Your task to perform on an android device: turn pop-ups on in chrome Image 0: 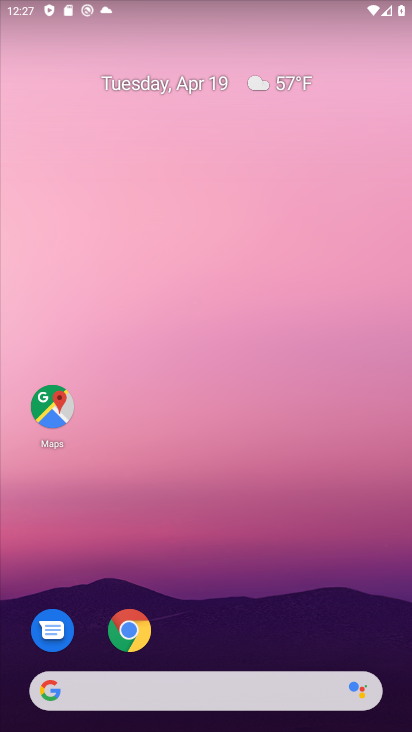
Step 0: click (133, 642)
Your task to perform on an android device: turn pop-ups on in chrome Image 1: 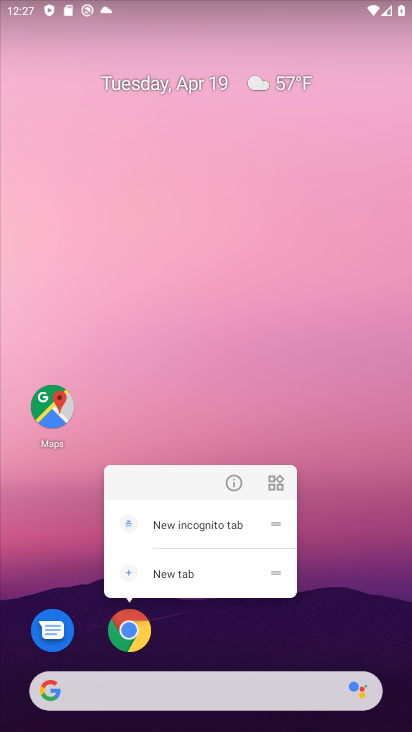
Step 1: drag from (257, 696) to (358, 162)
Your task to perform on an android device: turn pop-ups on in chrome Image 2: 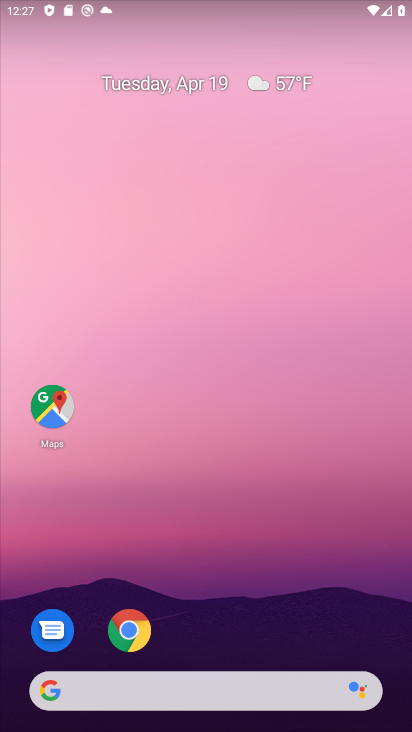
Step 2: drag from (207, 615) to (278, 63)
Your task to perform on an android device: turn pop-ups on in chrome Image 3: 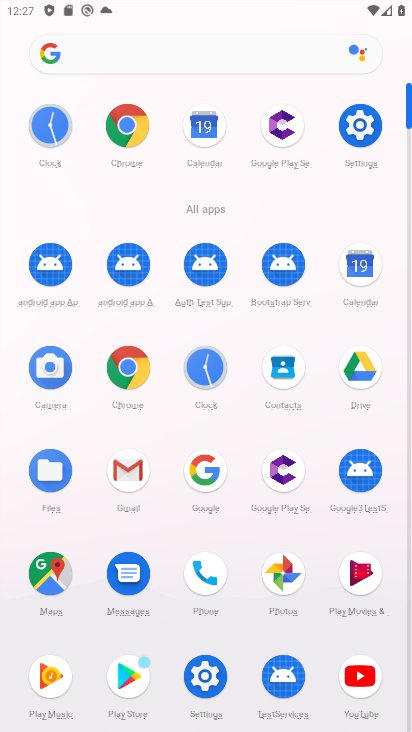
Step 3: click (129, 372)
Your task to perform on an android device: turn pop-ups on in chrome Image 4: 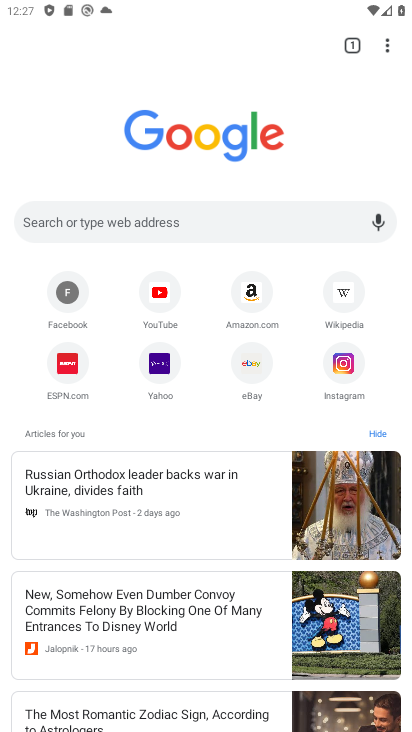
Step 4: click (390, 43)
Your task to perform on an android device: turn pop-ups on in chrome Image 5: 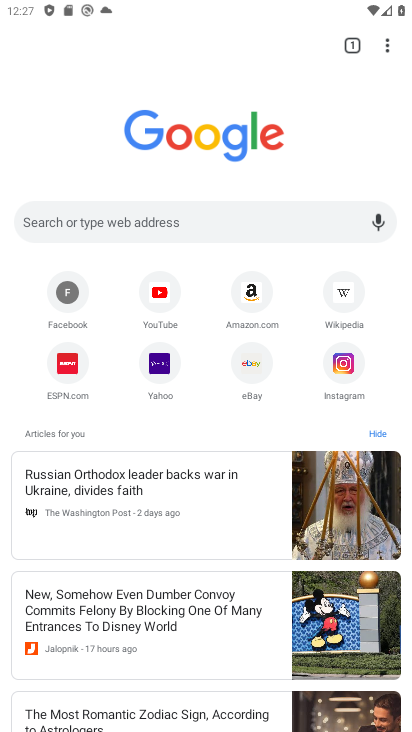
Step 5: drag from (392, 58) to (308, 380)
Your task to perform on an android device: turn pop-ups on in chrome Image 6: 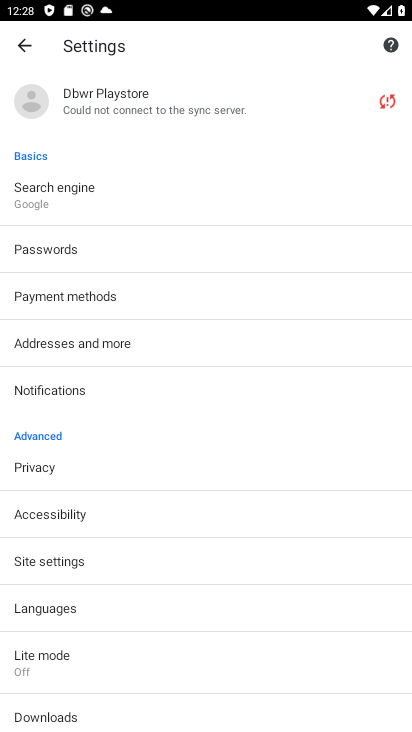
Step 6: drag from (133, 650) to (212, 317)
Your task to perform on an android device: turn pop-ups on in chrome Image 7: 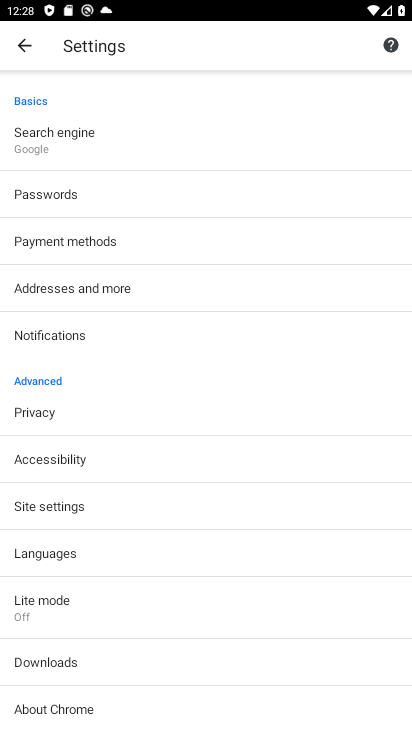
Step 7: click (111, 510)
Your task to perform on an android device: turn pop-ups on in chrome Image 8: 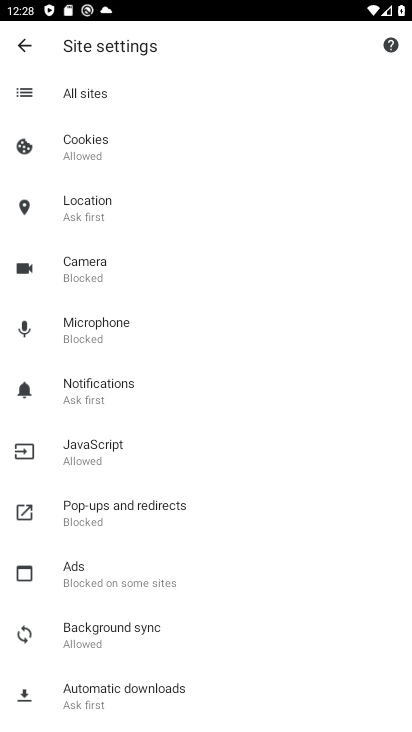
Step 8: click (179, 515)
Your task to perform on an android device: turn pop-ups on in chrome Image 9: 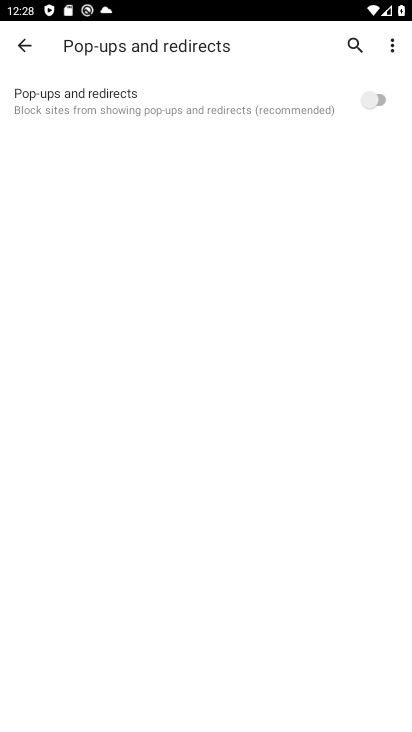
Step 9: click (405, 98)
Your task to perform on an android device: turn pop-ups on in chrome Image 10: 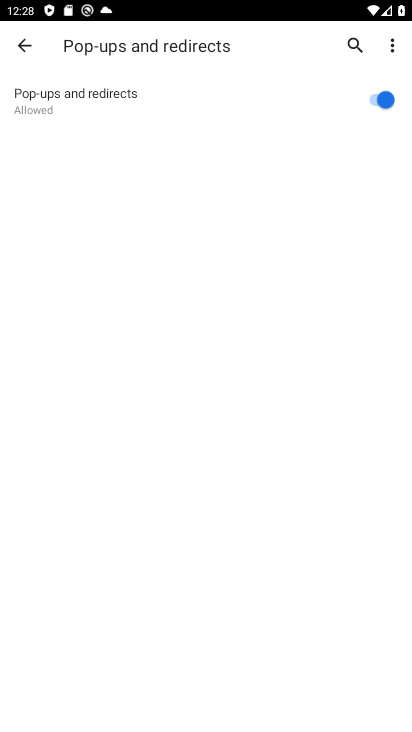
Step 10: task complete